Your task to perform on an android device: What is the news today? Image 0: 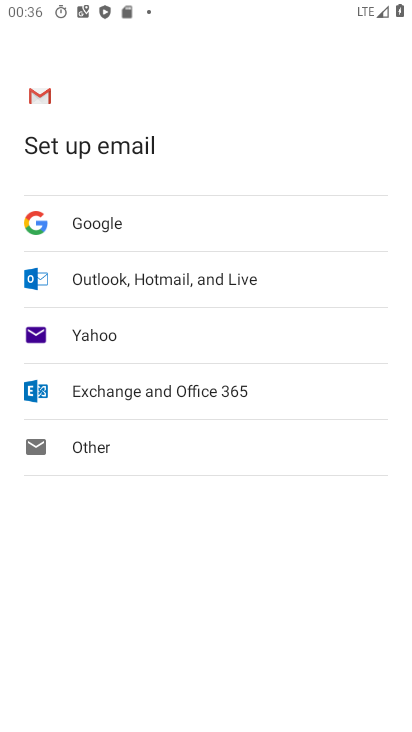
Step 0: press home button
Your task to perform on an android device: What is the news today? Image 1: 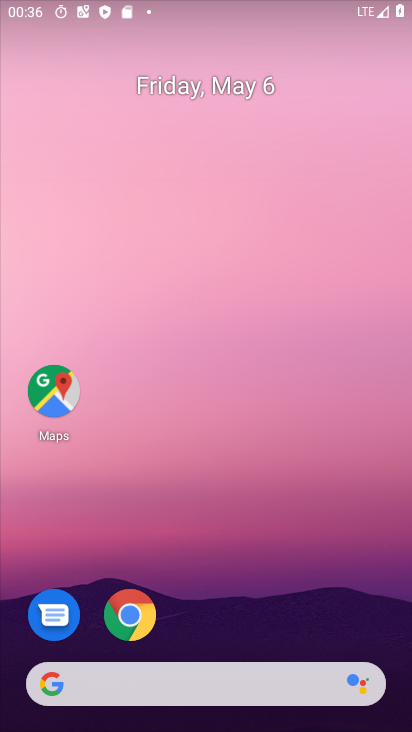
Step 1: drag from (228, 617) to (274, 123)
Your task to perform on an android device: What is the news today? Image 2: 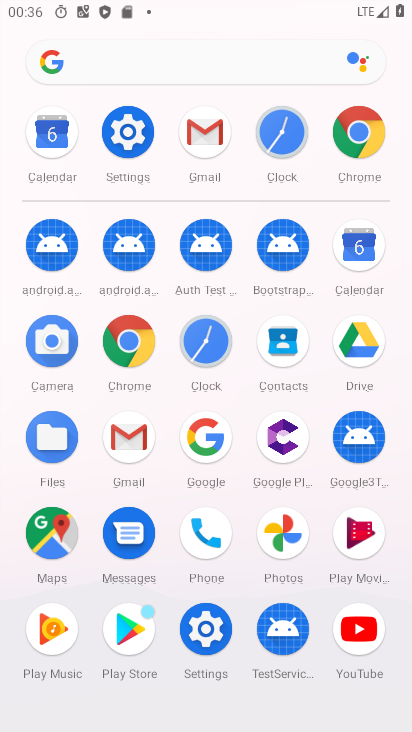
Step 2: click (207, 437)
Your task to perform on an android device: What is the news today? Image 3: 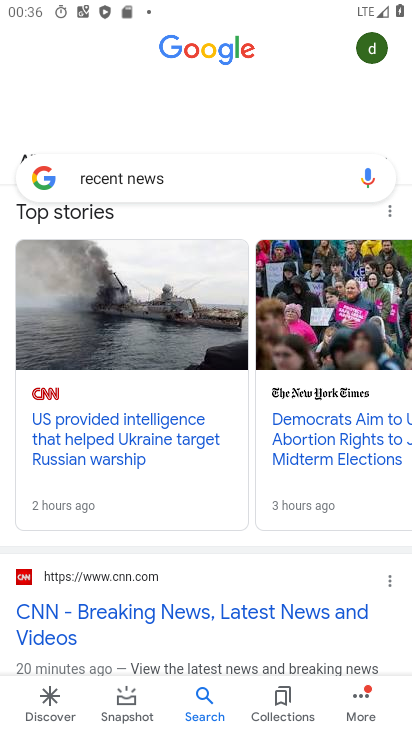
Step 3: click (196, 180)
Your task to perform on an android device: What is the news today? Image 4: 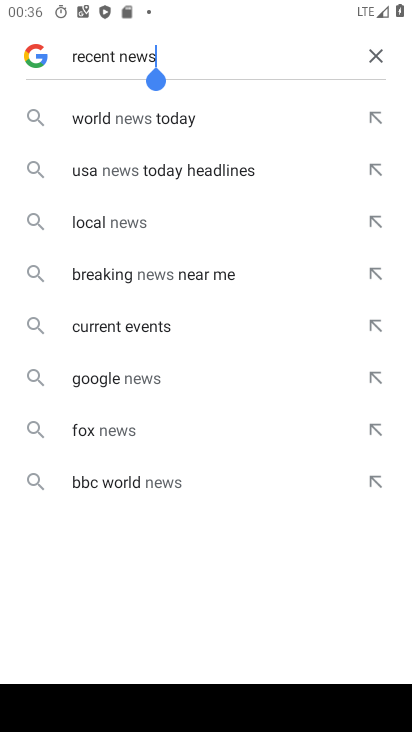
Step 4: click (376, 56)
Your task to perform on an android device: What is the news today? Image 5: 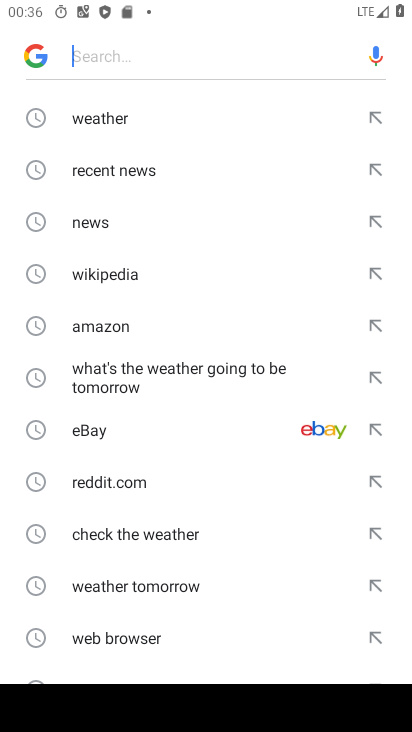
Step 5: type "news today"
Your task to perform on an android device: What is the news today? Image 6: 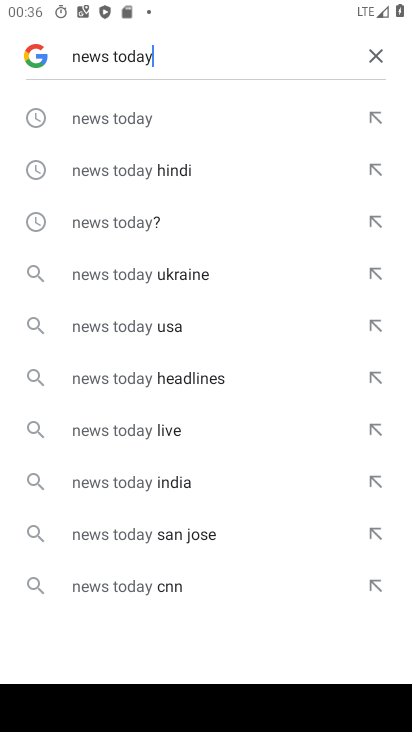
Step 6: click (122, 117)
Your task to perform on an android device: What is the news today? Image 7: 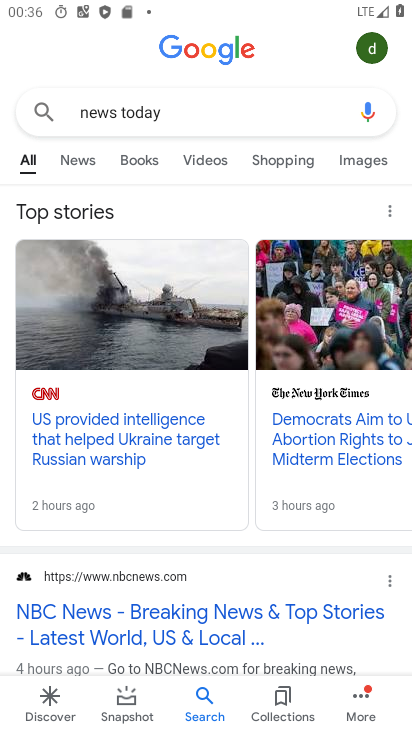
Step 7: task complete